Your task to perform on an android device: Search for the best rated phone case for the iPhone 8. Image 0: 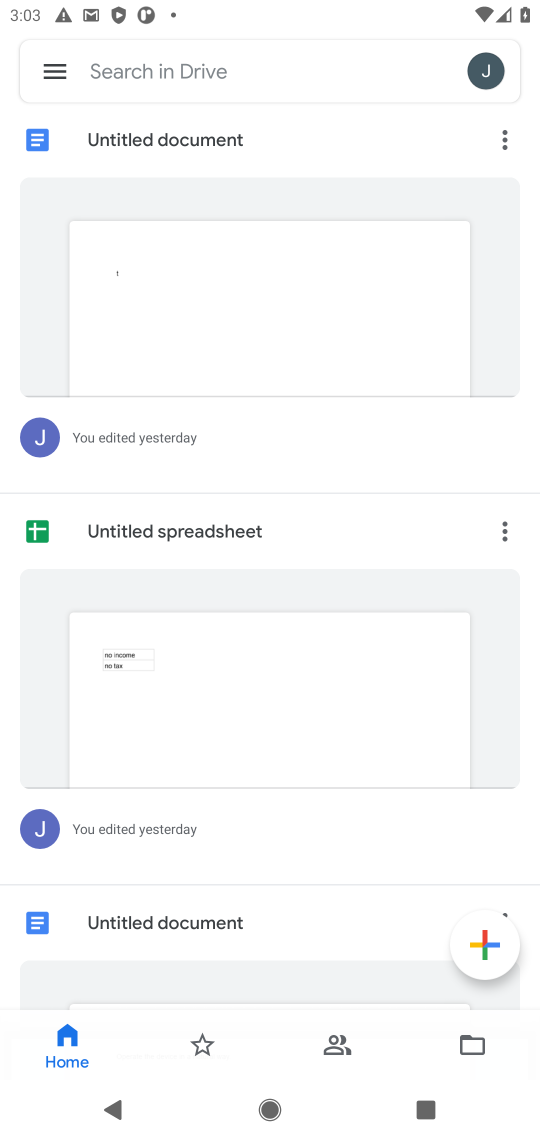
Step 0: press home button
Your task to perform on an android device: Search for the best rated phone case for the iPhone 8. Image 1: 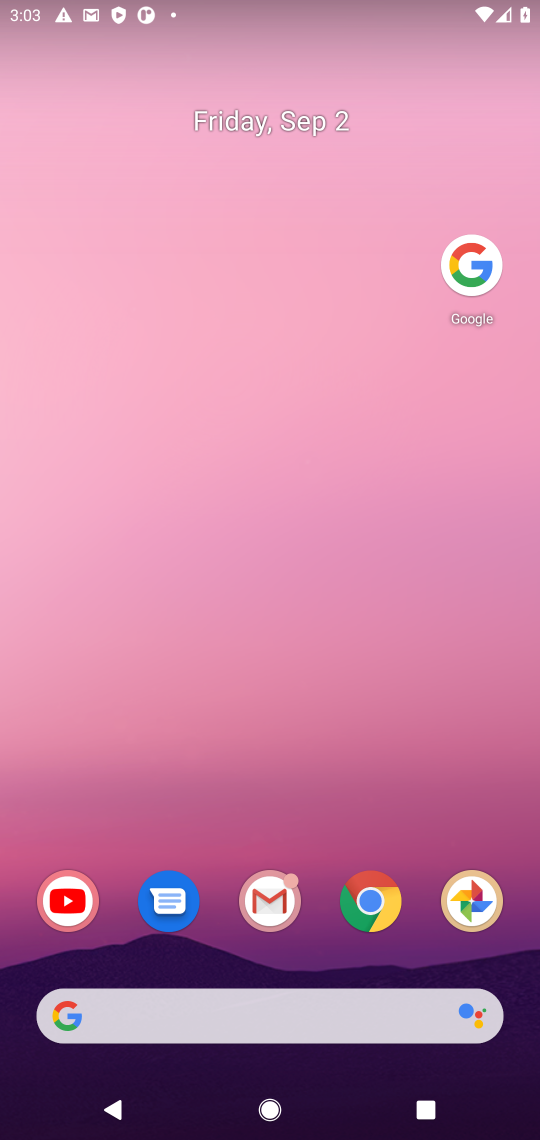
Step 1: drag from (279, 931) to (290, 274)
Your task to perform on an android device: Search for the best rated phone case for the iPhone 8. Image 2: 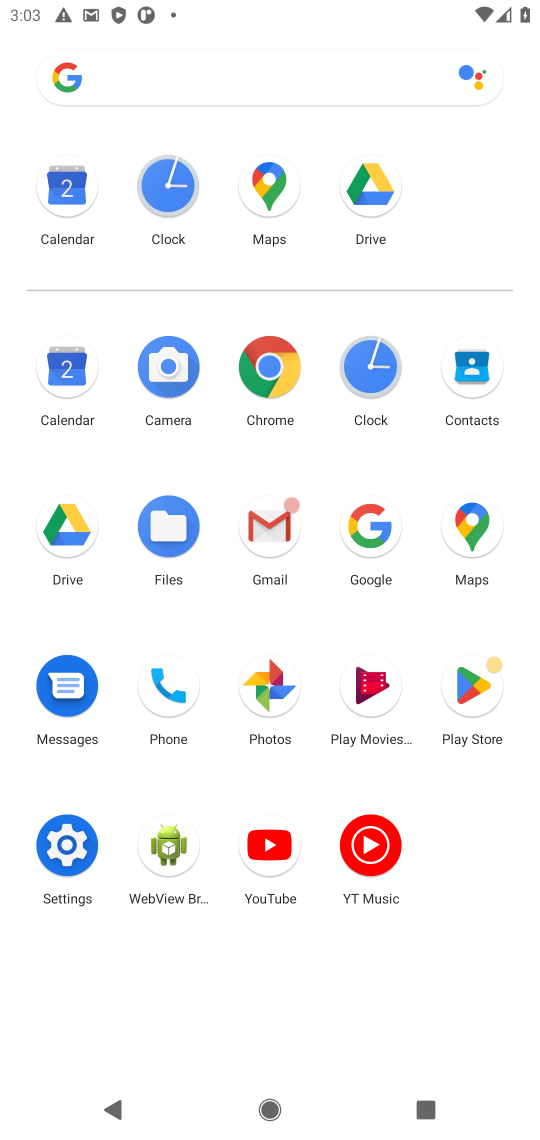
Step 2: click (377, 523)
Your task to perform on an android device: Search for the best rated phone case for the iPhone 8. Image 3: 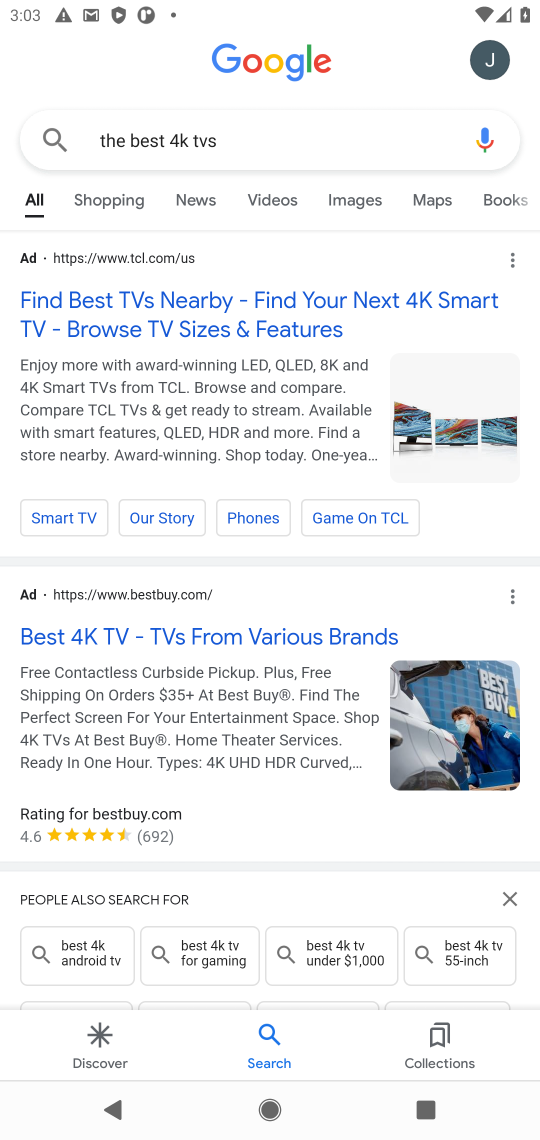
Step 3: click (272, 145)
Your task to perform on an android device: Search for the best rated phone case for the iPhone 8. Image 4: 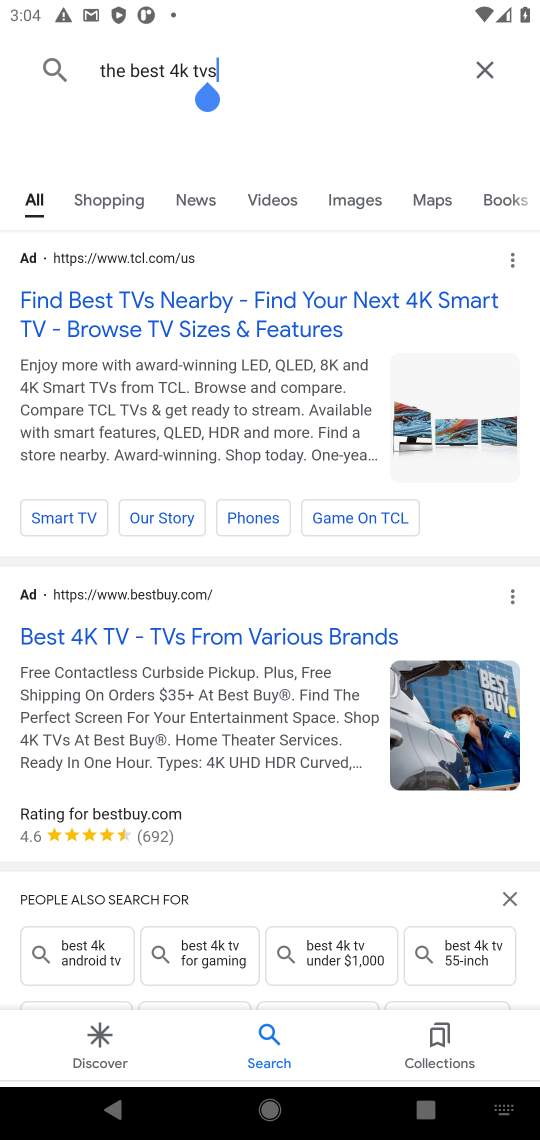
Step 4: click (480, 68)
Your task to perform on an android device: Search for the best rated phone case for the iPhone 8. Image 5: 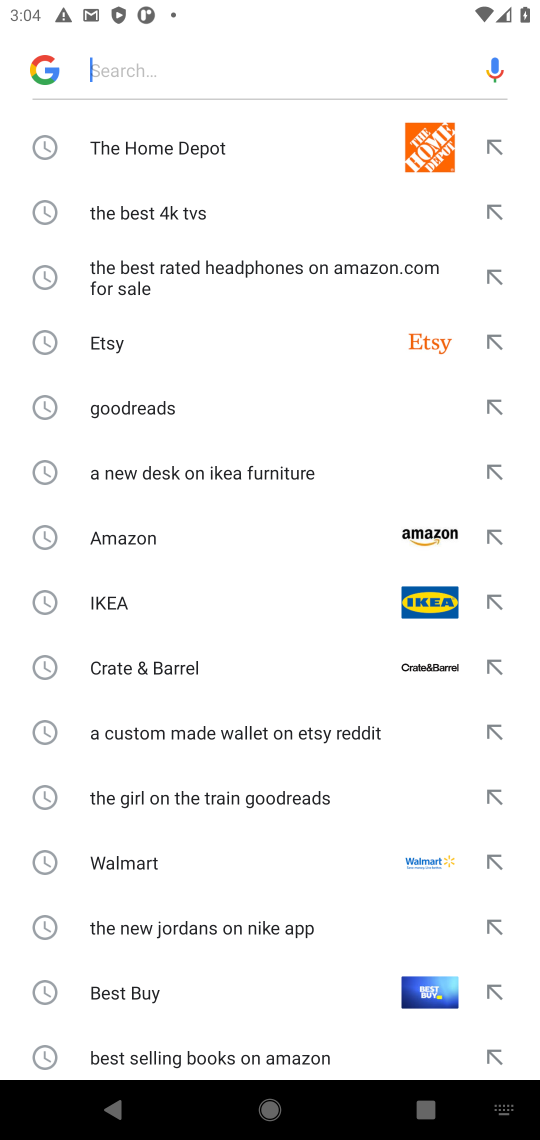
Step 5: click (154, 72)
Your task to perform on an android device: Search for the best rated phone case for the iPhone 8. Image 6: 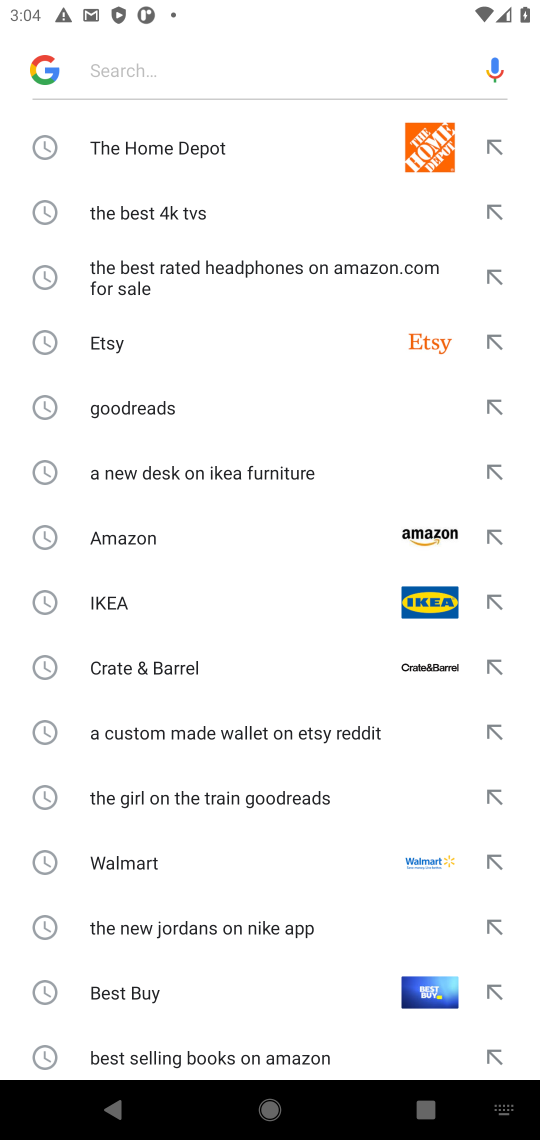
Step 6: type " the best rated phone case for the iPhone 8 "
Your task to perform on an android device: Search for the best rated phone case for the iPhone 8. Image 7: 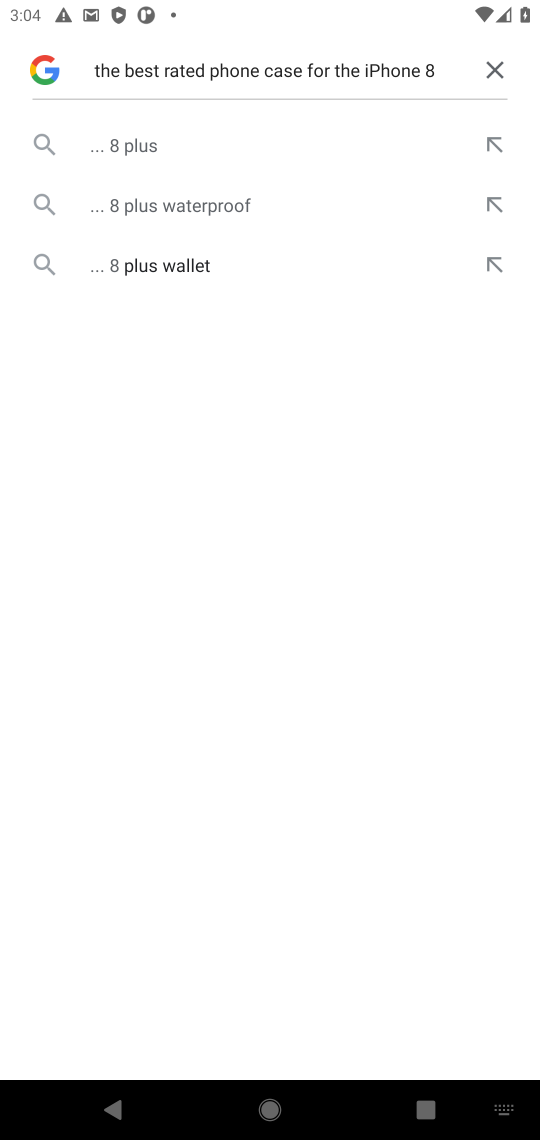
Step 7: click (143, 140)
Your task to perform on an android device: Search for the best rated phone case for the iPhone 8. Image 8: 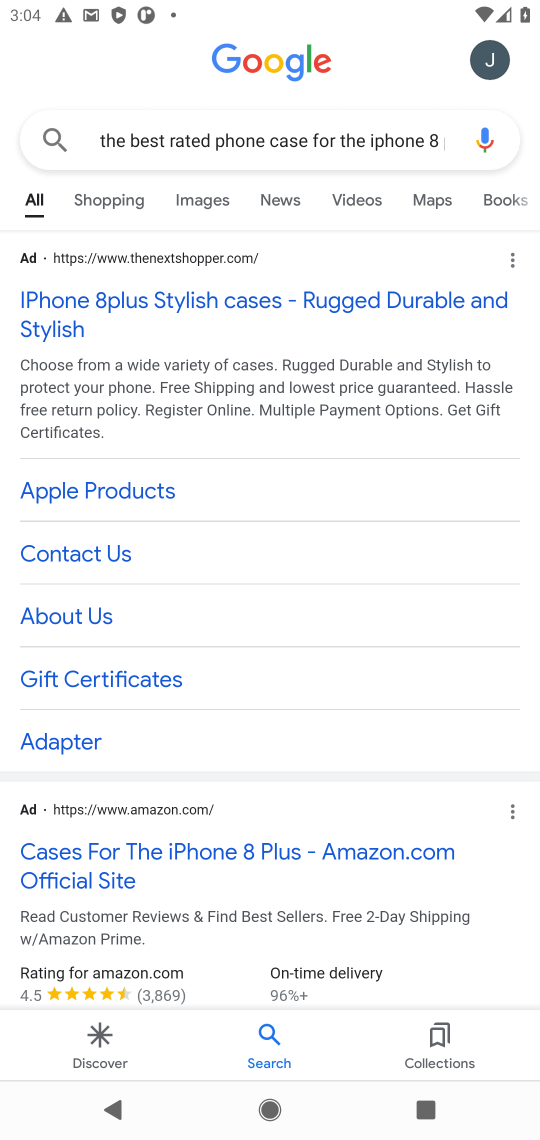
Step 8: click (32, 856)
Your task to perform on an android device: Search for the best rated phone case for the iPhone 8. Image 9: 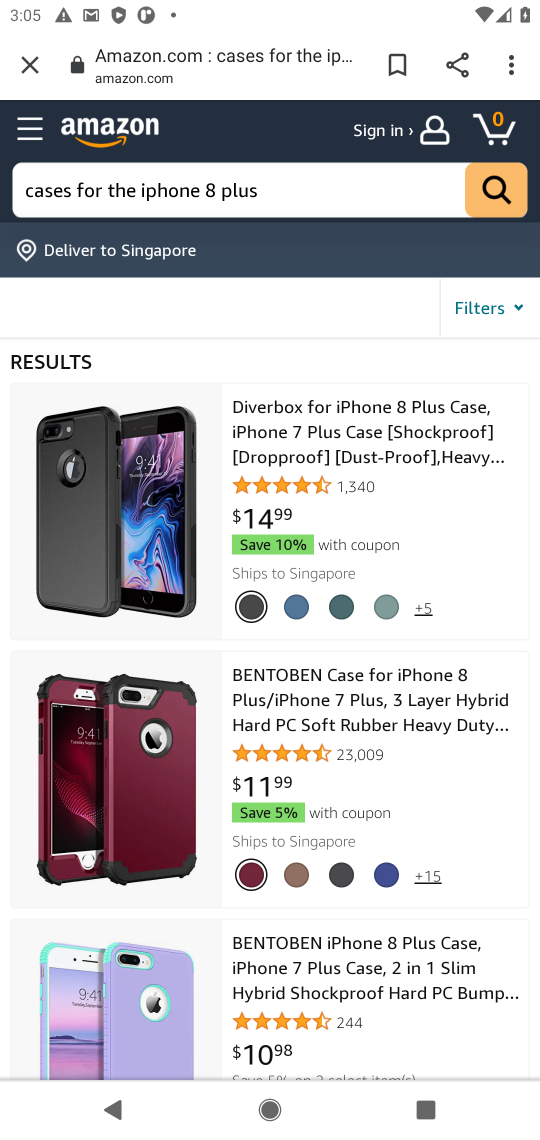
Step 9: task complete